Your task to perform on an android device: turn off data saver in the chrome app Image 0: 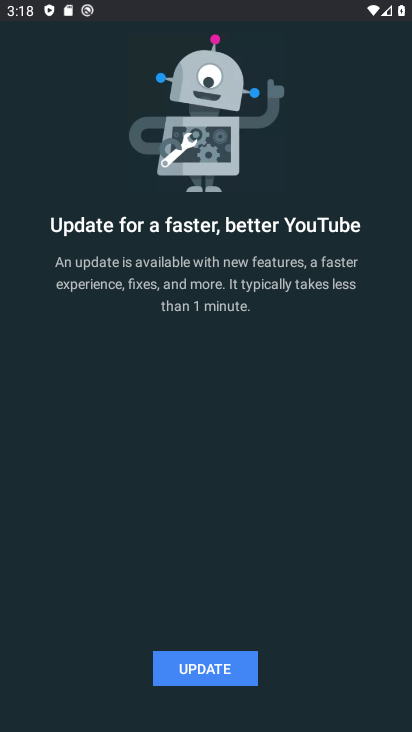
Step 0: press back button
Your task to perform on an android device: turn off data saver in the chrome app Image 1: 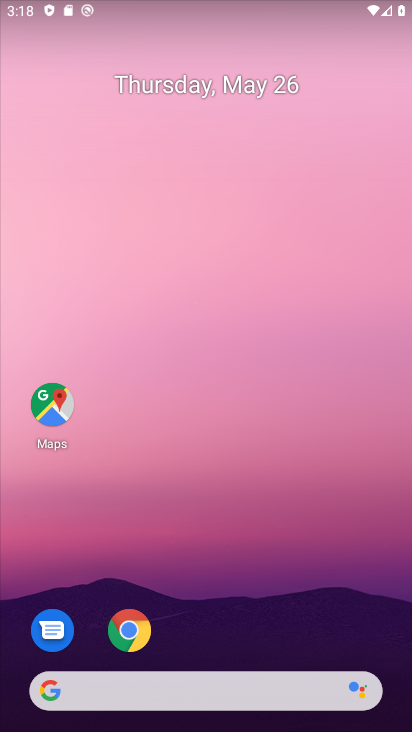
Step 1: click (130, 630)
Your task to perform on an android device: turn off data saver in the chrome app Image 2: 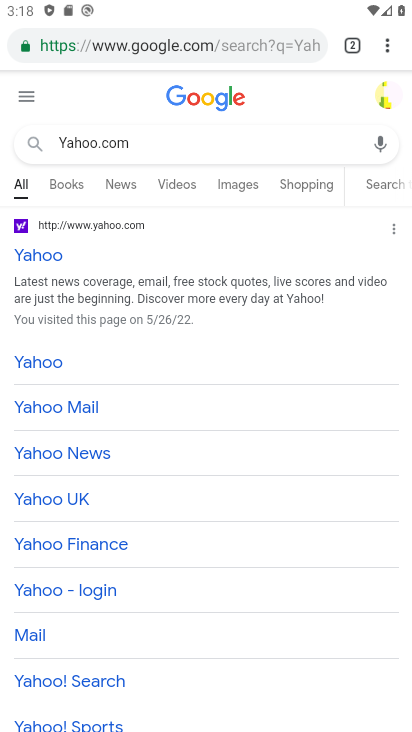
Step 2: click (388, 46)
Your task to perform on an android device: turn off data saver in the chrome app Image 3: 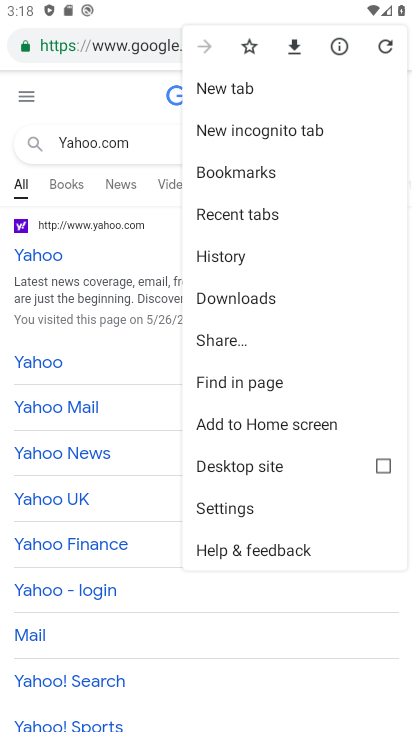
Step 3: click (231, 507)
Your task to perform on an android device: turn off data saver in the chrome app Image 4: 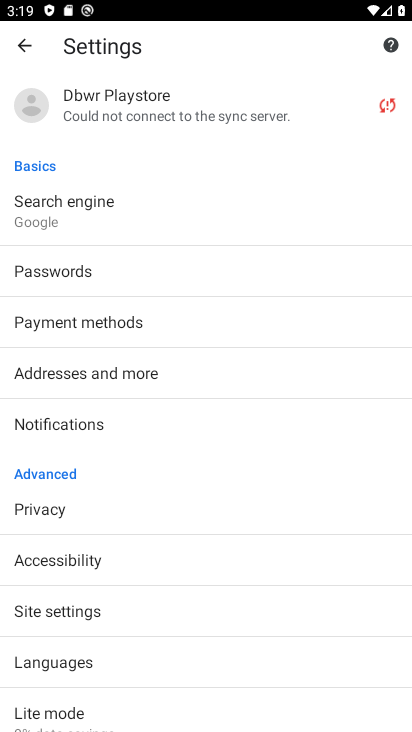
Step 4: click (78, 710)
Your task to perform on an android device: turn off data saver in the chrome app Image 5: 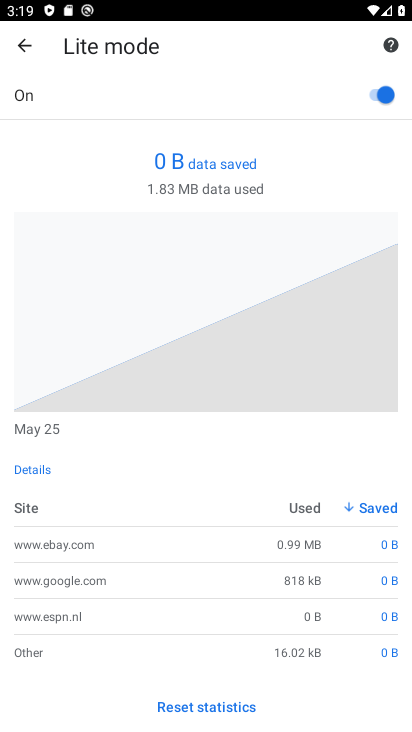
Step 5: click (376, 91)
Your task to perform on an android device: turn off data saver in the chrome app Image 6: 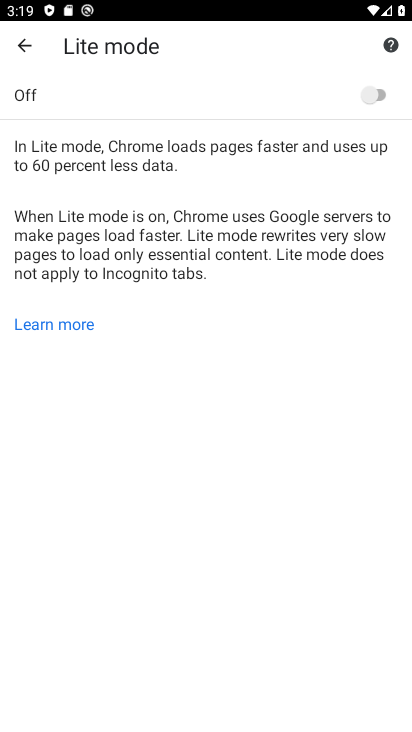
Step 6: task complete